Your task to perform on an android device: change text size in settings app Image 0: 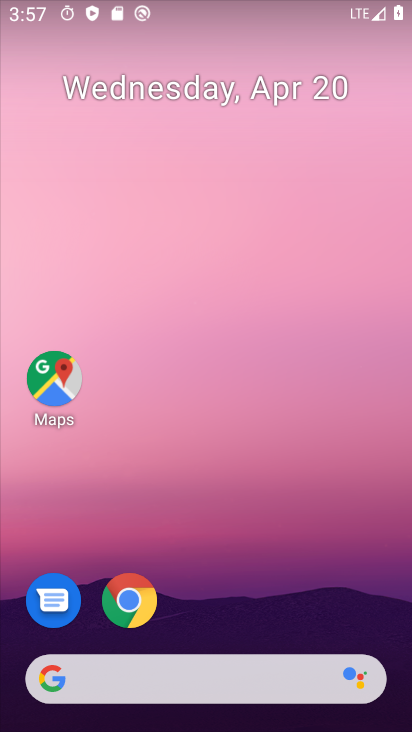
Step 0: drag from (204, 184) to (203, 131)
Your task to perform on an android device: change text size in settings app Image 1: 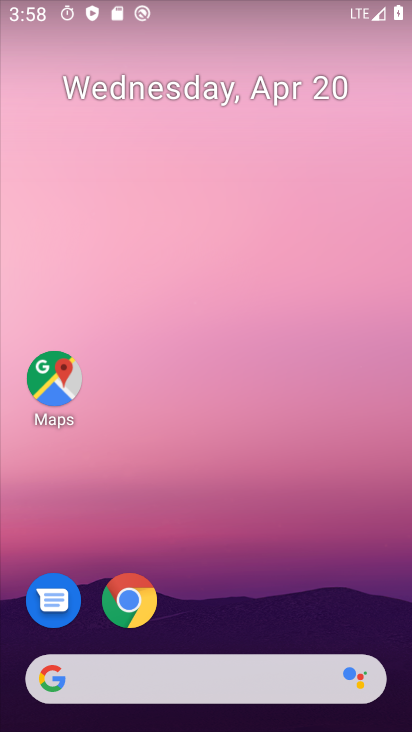
Step 1: drag from (250, 511) to (257, 40)
Your task to perform on an android device: change text size in settings app Image 2: 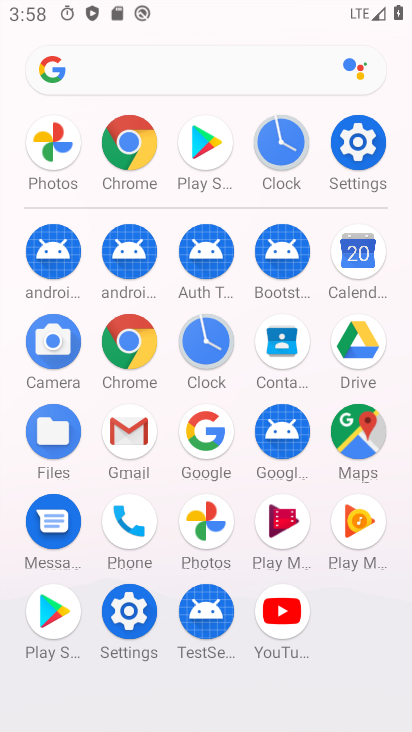
Step 2: click (359, 145)
Your task to perform on an android device: change text size in settings app Image 3: 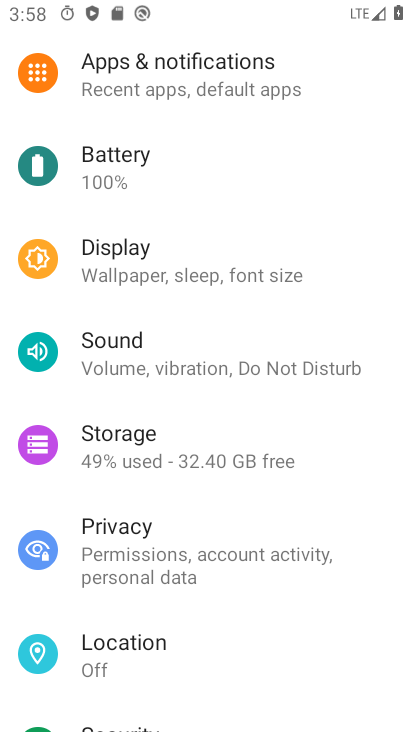
Step 3: click (168, 276)
Your task to perform on an android device: change text size in settings app Image 4: 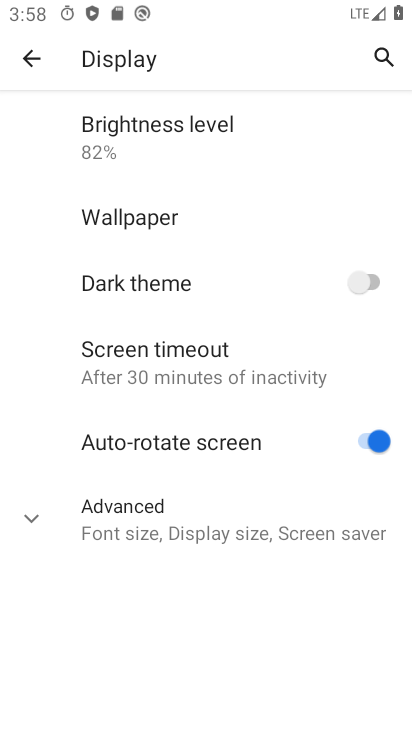
Step 4: click (280, 532)
Your task to perform on an android device: change text size in settings app Image 5: 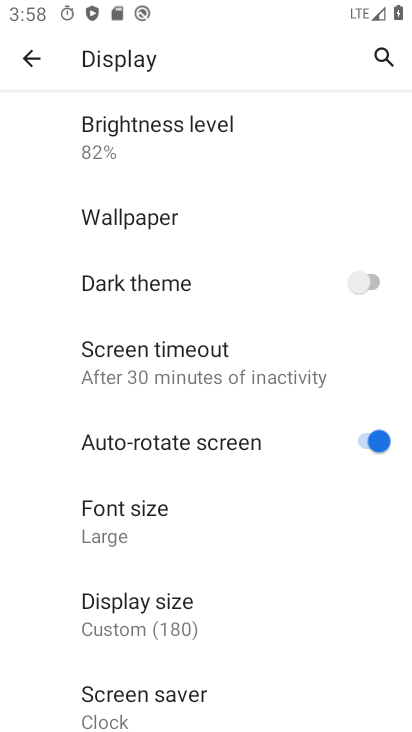
Step 5: click (100, 533)
Your task to perform on an android device: change text size in settings app Image 6: 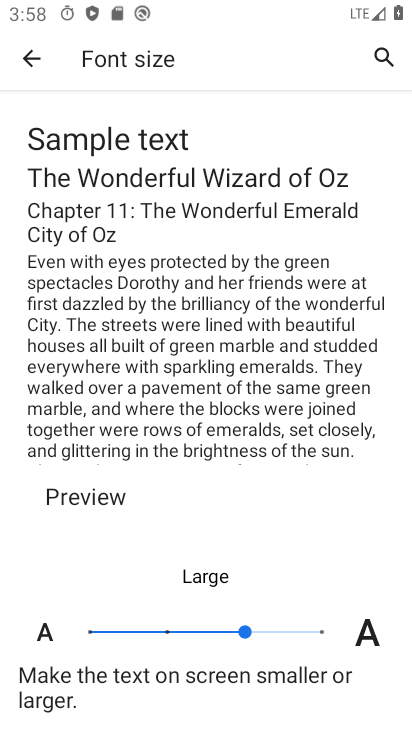
Step 6: click (106, 631)
Your task to perform on an android device: change text size in settings app Image 7: 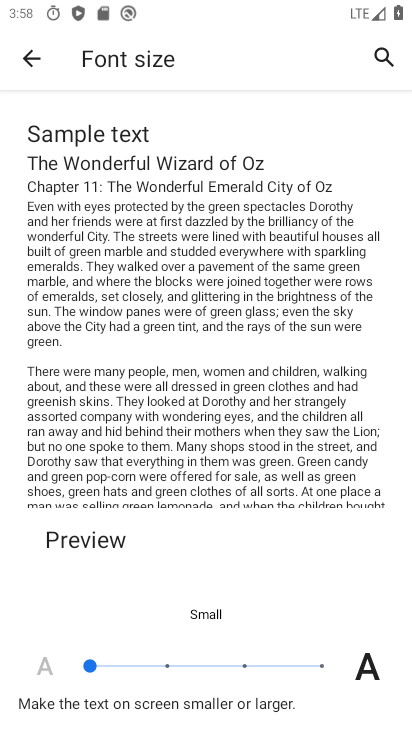
Step 7: task complete